Your task to perform on an android device: empty trash in google photos Image 0: 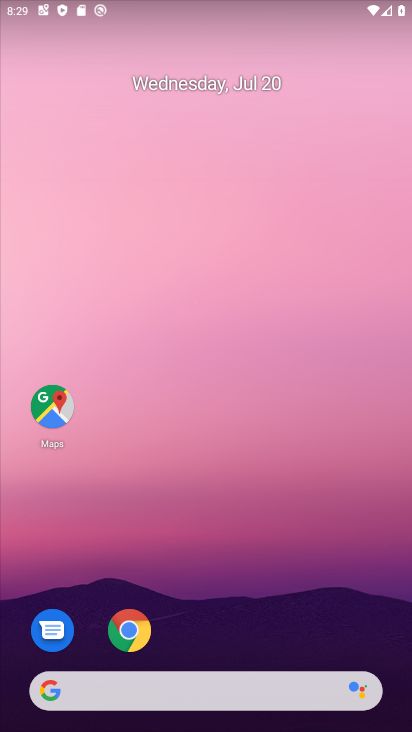
Step 0: drag from (394, 708) to (340, 161)
Your task to perform on an android device: empty trash in google photos Image 1: 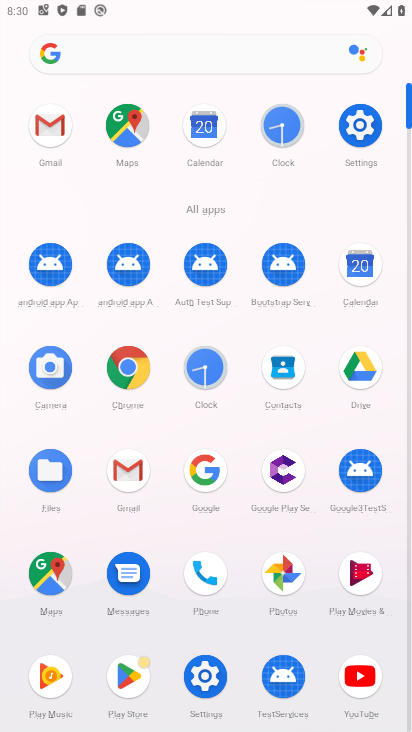
Step 1: click (286, 581)
Your task to perform on an android device: empty trash in google photos Image 2: 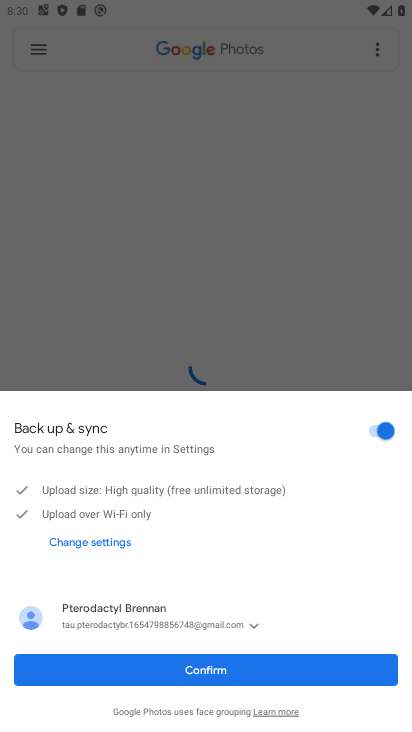
Step 2: click (223, 663)
Your task to perform on an android device: empty trash in google photos Image 3: 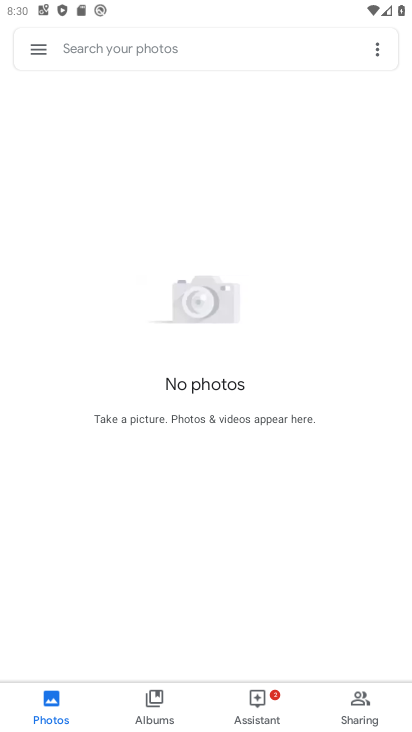
Step 3: click (33, 52)
Your task to perform on an android device: empty trash in google photos Image 4: 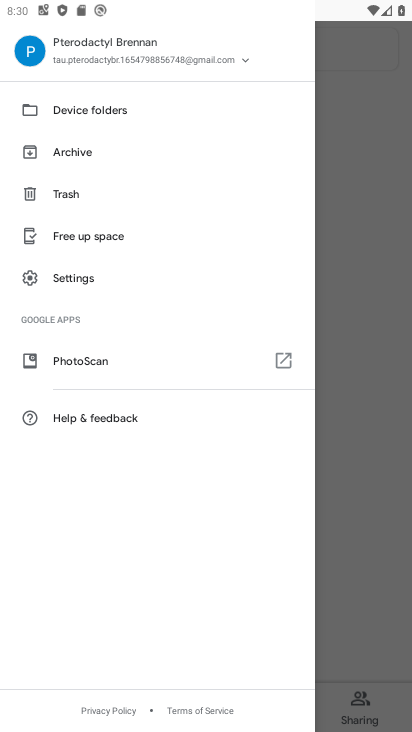
Step 4: click (39, 192)
Your task to perform on an android device: empty trash in google photos Image 5: 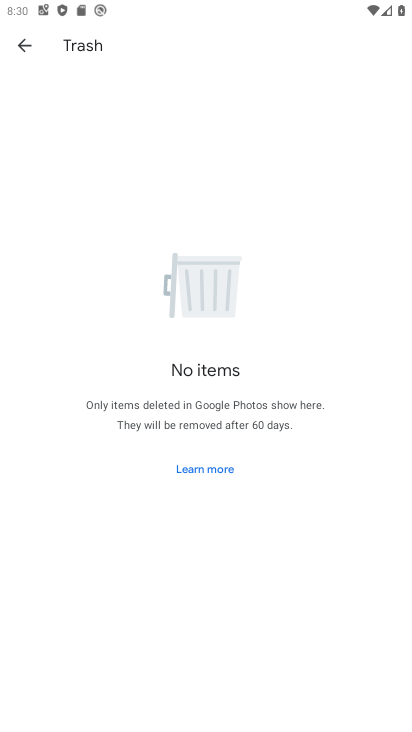
Step 5: task complete